Your task to perform on an android device: change notification settings in the gmail app Image 0: 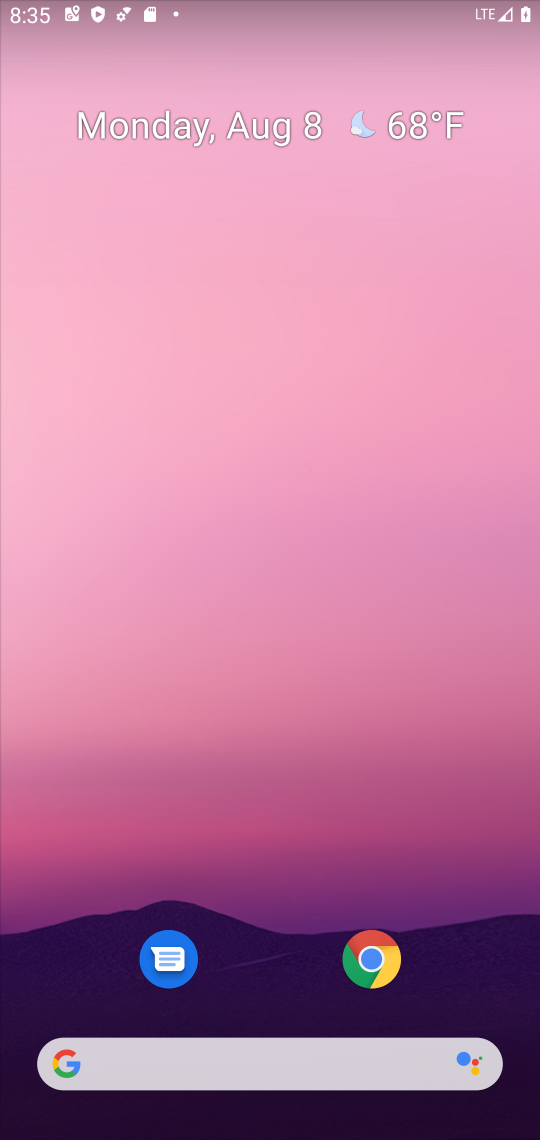
Step 0: drag from (511, 980) to (281, 39)
Your task to perform on an android device: change notification settings in the gmail app Image 1: 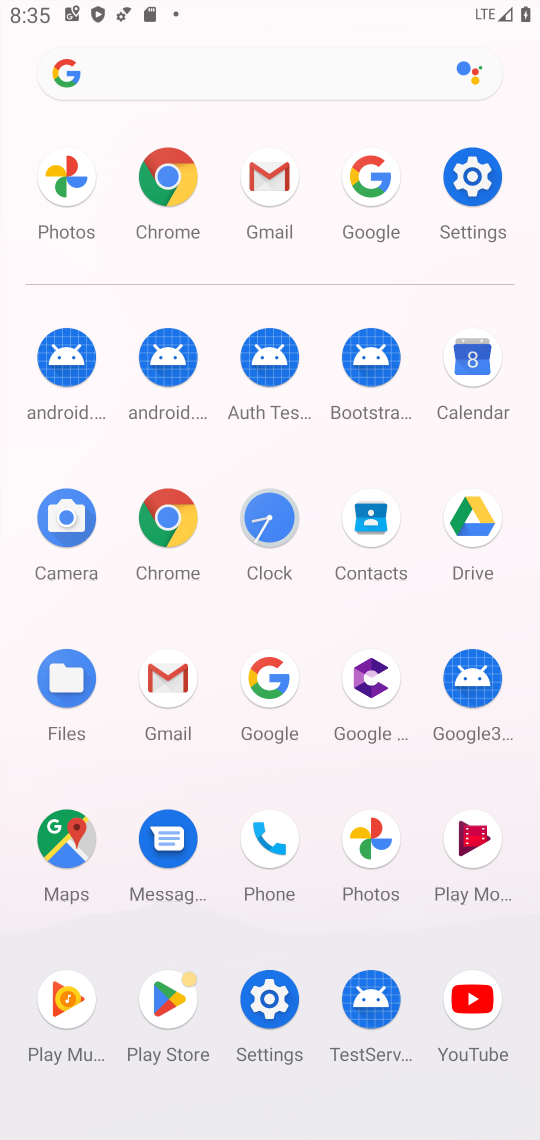
Step 1: click (167, 658)
Your task to perform on an android device: change notification settings in the gmail app Image 2: 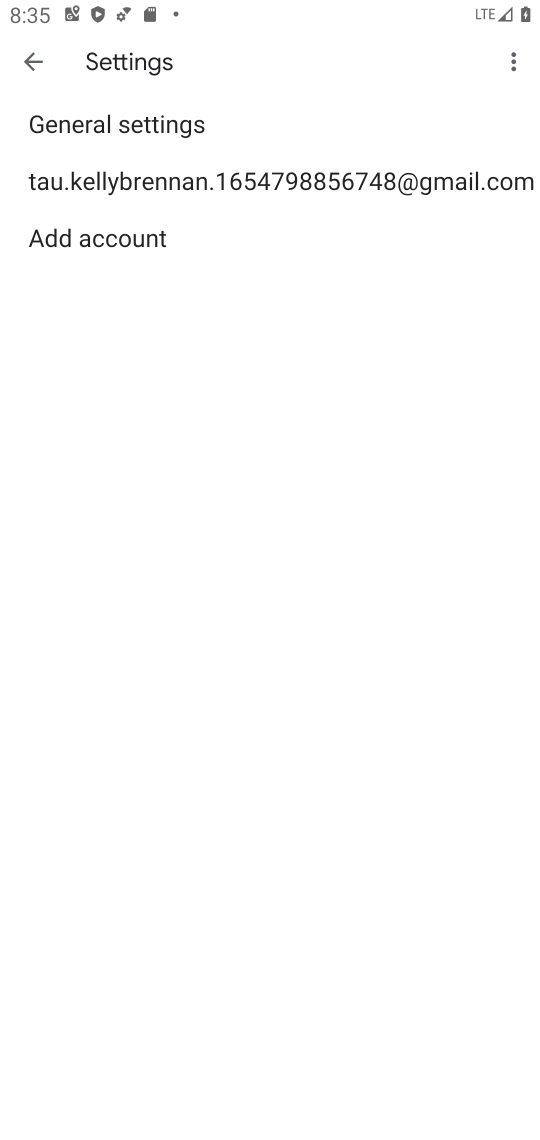
Step 2: click (181, 189)
Your task to perform on an android device: change notification settings in the gmail app Image 3: 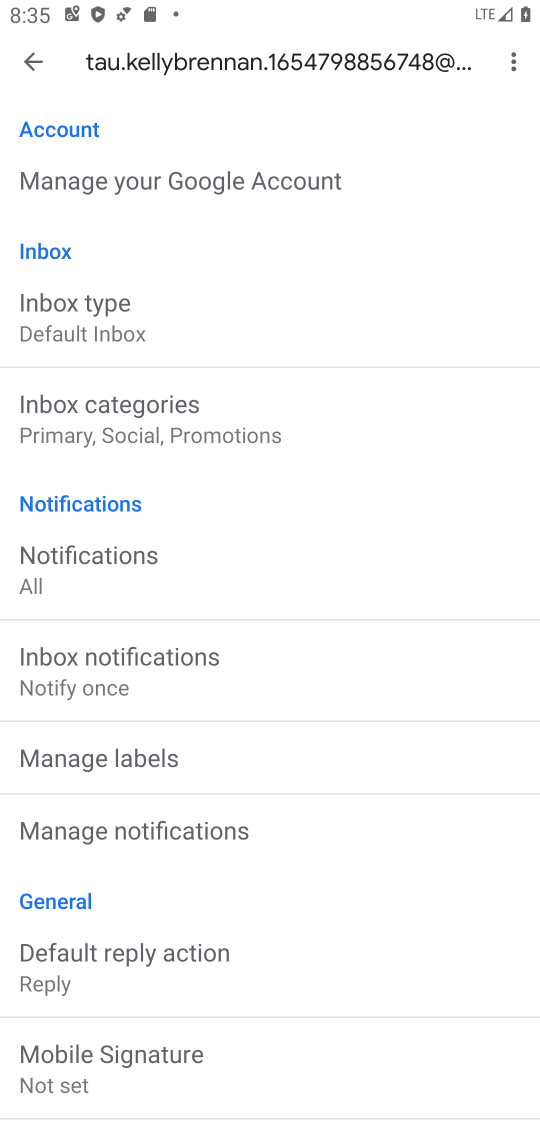
Step 3: task complete